Your task to perform on an android device: turn vacation reply on in the gmail app Image 0: 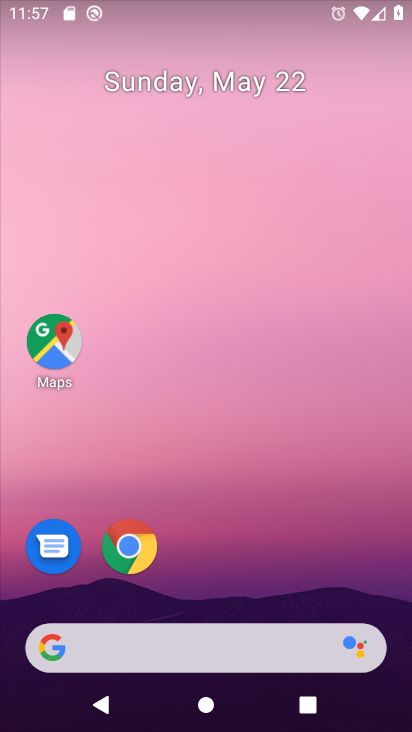
Step 0: drag from (225, 589) to (301, 35)
Your task to perform on an android device: turn vacation reply on in the gmail app Image 1: 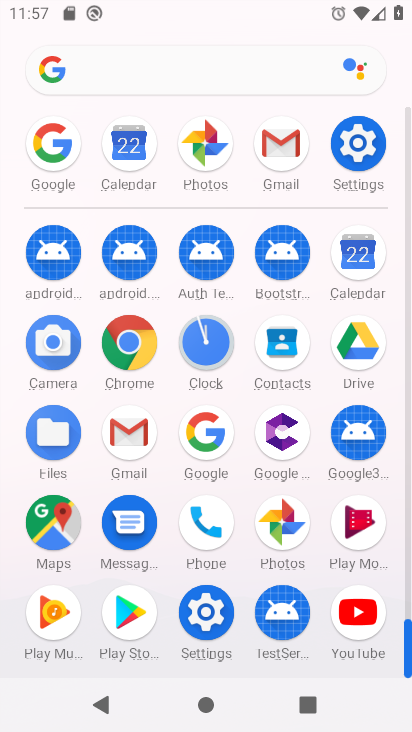
Step 1: click (128, 452)
Your task to perform on an android device: turn vacation reply on in the gmail app Image 2: 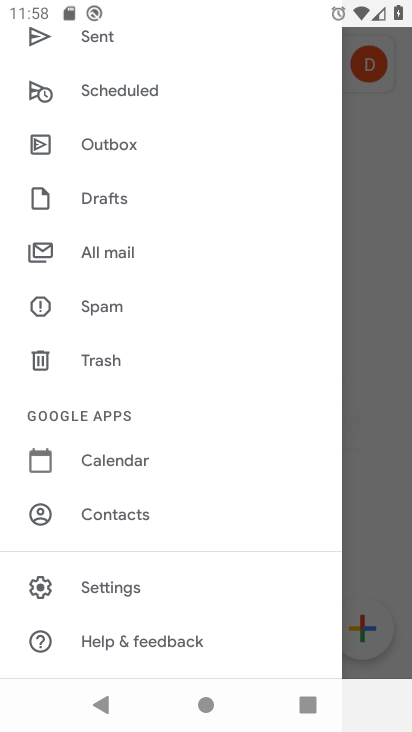
Step 2: click (106, 596)
Your task to perform on an android device: turn vacation reply on in the gmail app Image 3: 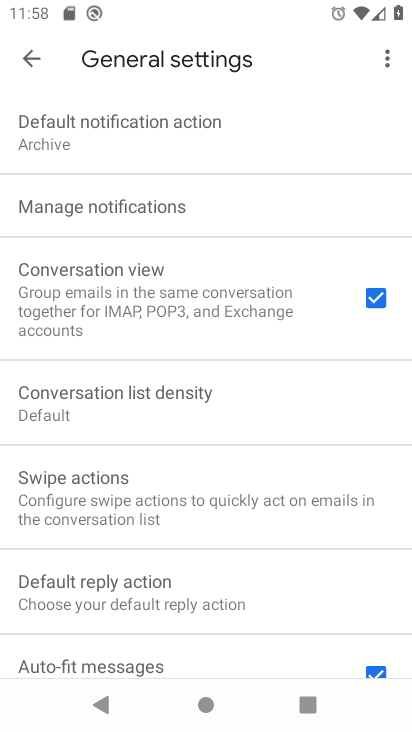
Step 3: click (27, 57)
Your task to perform on an android device: turn vacation reply on in the gmail app Image 4: 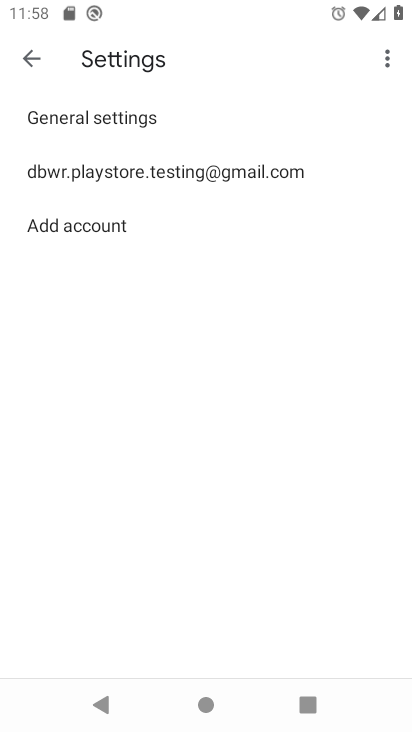
Step 4: click (155, 182)
Your task to perform on an android device: turn vacation reply on in the gmail app Image 5: 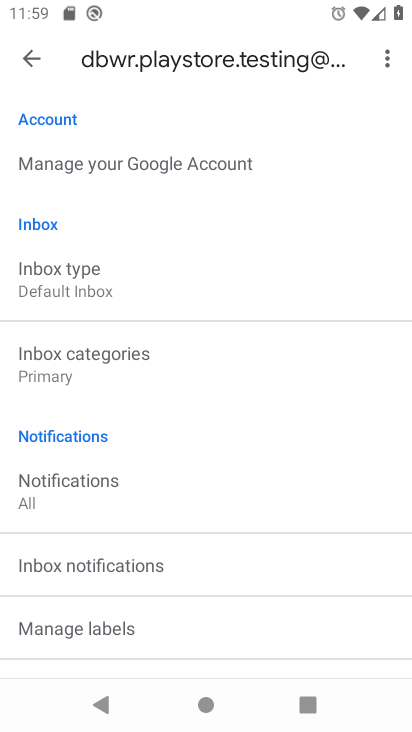
Step 5: drag from (167, 625) to (238, 174)
Your task to perform on an android device: turn vacation reply on in the gmail app Image 6: 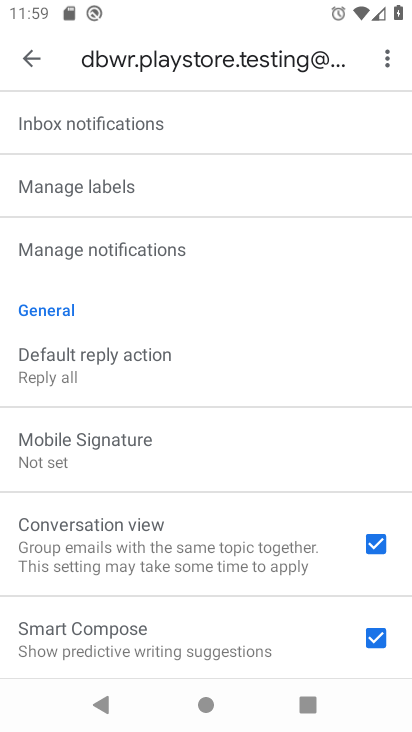
Step 6: drag from (156, 599) to (236, 241)
Your task to perform on an android device: turn vacation reply on in the gmail app Image 7: 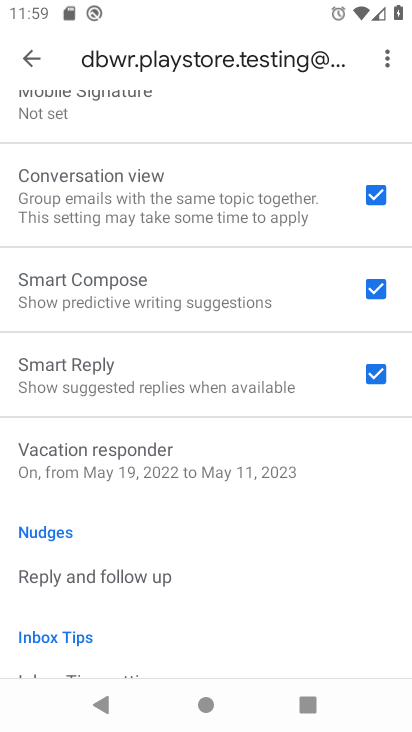
Step 7: click (206, 453)
Your task to perform on an android device: turn vacation reply on in the gmail app Image 8: 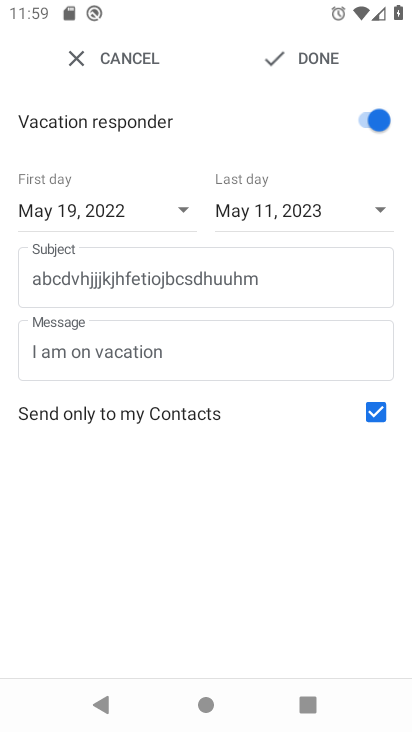
Step 8: task complete